Your task to perform on an android device: Open Amazon Image 0: 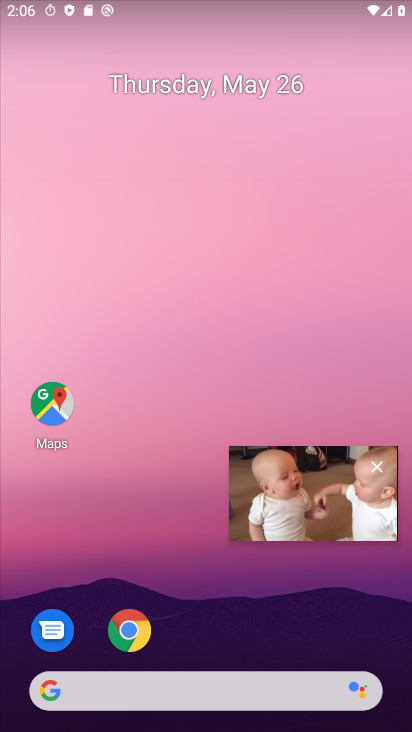
Step 0: click (374, 470)
Your task to perform on an android device: Open Amazon Image 1: 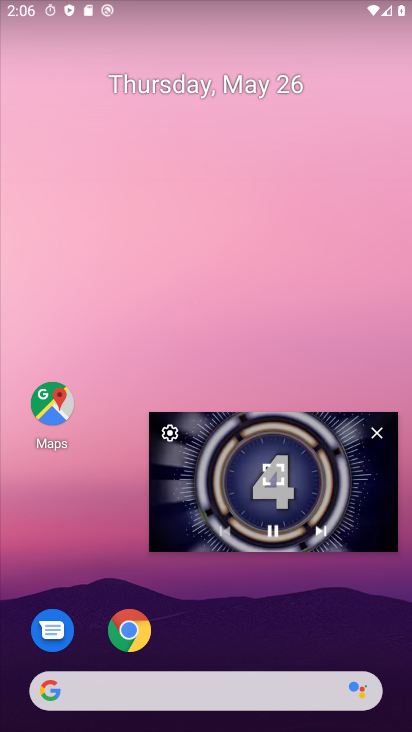
Step 1: click (371, 432)
Your task to perform on an android device: Open Amazon Image 2: 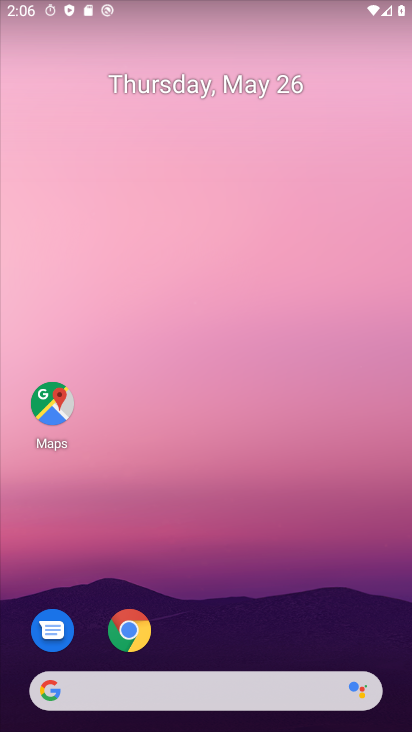
Step 2: click (134, 623)
Your task to perform on an android device: Open Amazon Image 3: 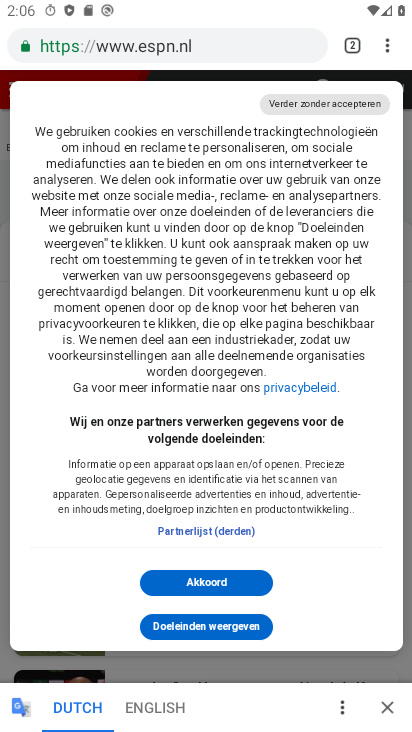
Step 3: click (351, 43)
Your task to perform on an android device: Open Amazon Image 4: 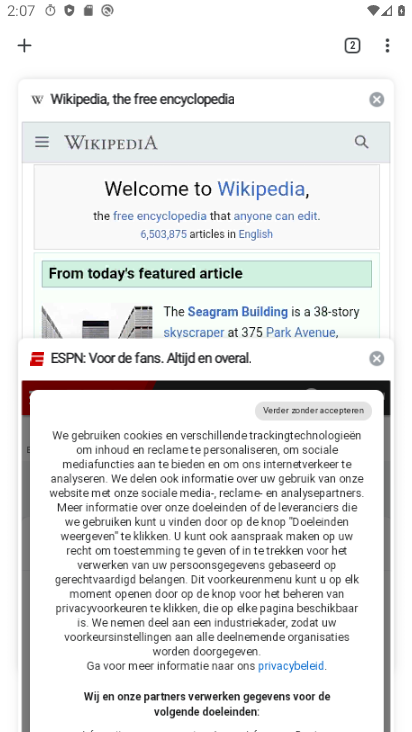
Step 4: click (24, 32)
Your task to perform on an android device: Open Amazon Image 5: 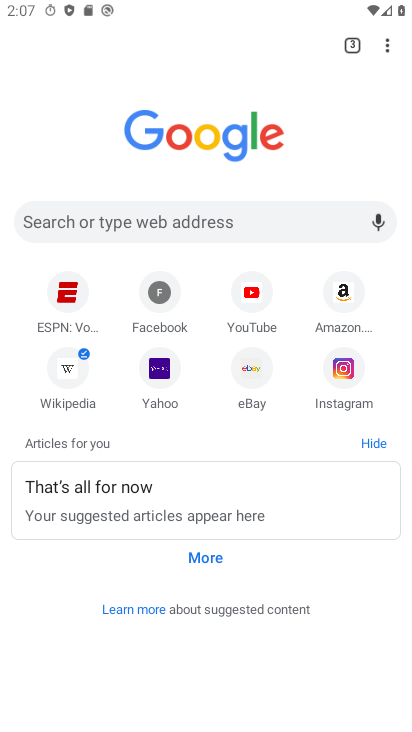
Step 5: click (337, 308)
Your task to perform on an android device: Open Amazon Image 6: 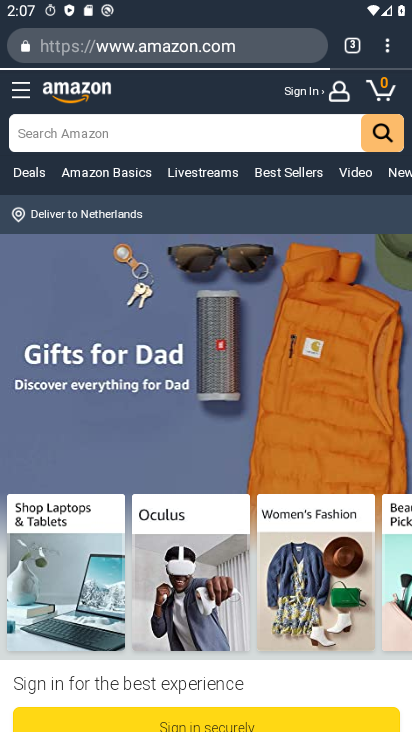
Step 6: task complete